Your task to perform on an android device: move an email to a new category in the gmail app Image 0: 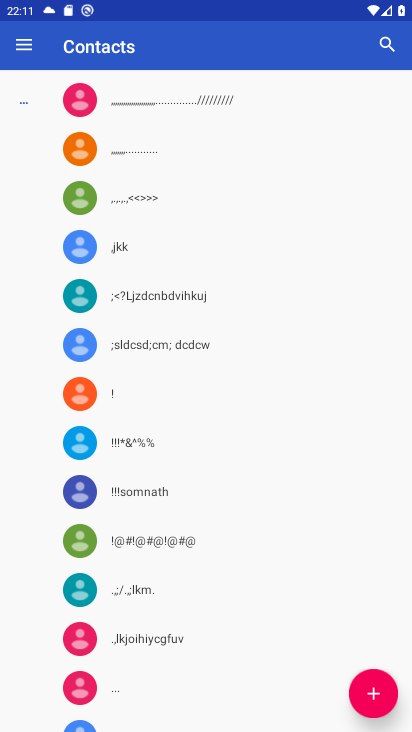
Step 0: press home button
Your task to perform on an android device: move an email to a new category in the gmail app Image 1: 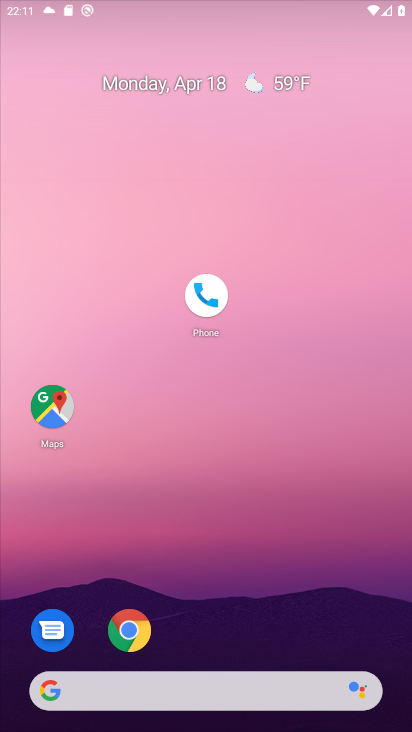
Step 1: drag from (202, 632) to (276, 83)
Your task to perform on an android device: move an email to a new category in the gmail app Image 2: 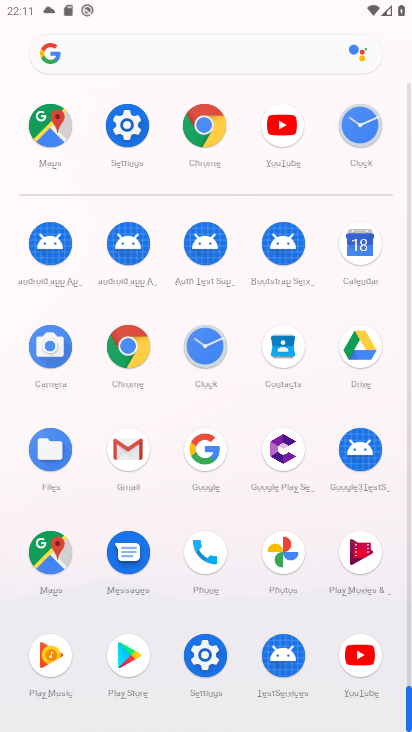
Step 2: click (128, 464)
Your task to perform on an android device: move an email to a new category in the gmail app Image 3: 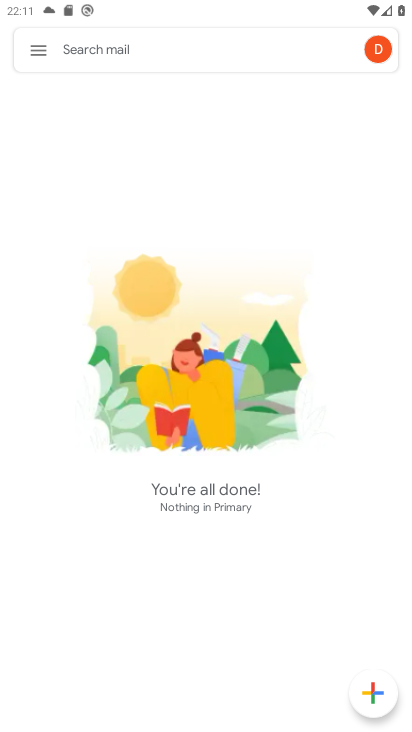
Step 3: click (33, 57)
Your task to perform on an android device: move an email to a new category in the gmail app Image 4: 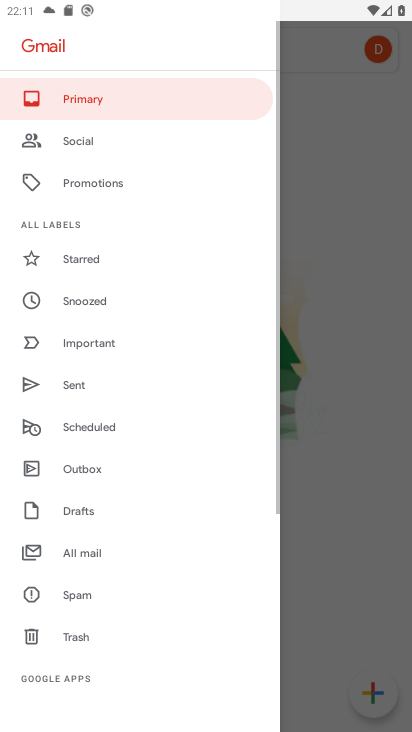
Step 4: click (85, 552)
Your task to perform on an android device: move an email to a new category in the gmail app Image 5: 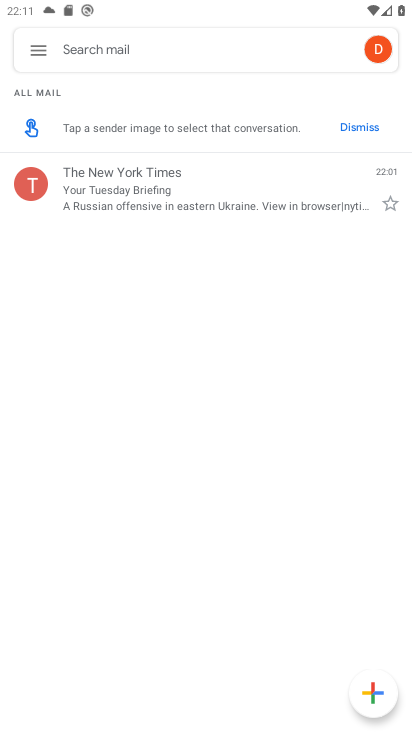
Step 5: click (286, 190)
Your task to perform on an android device: move an email to a new category in the gmail app Image 6: 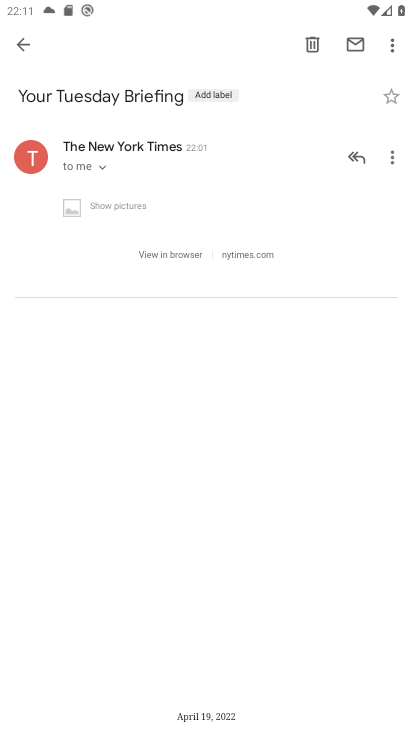
Step 6: click (390, 153)
Your task to perform on an android device: move an email to a new category in the gmail app Image 7: 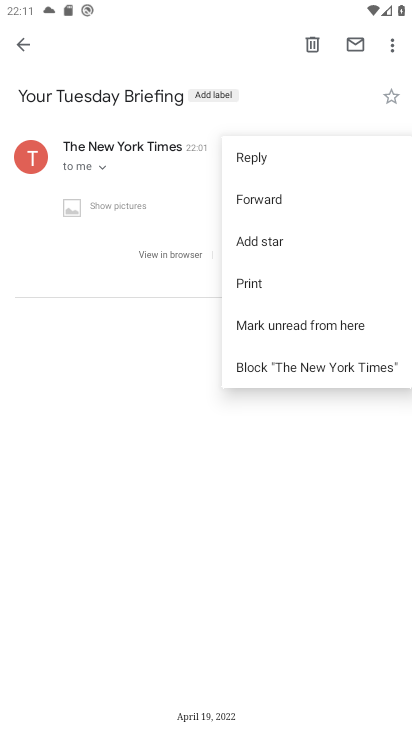
Step 7: click (149, 396)
Your task to perform on an android device: move an email to a new category in the gmail app Image 8: 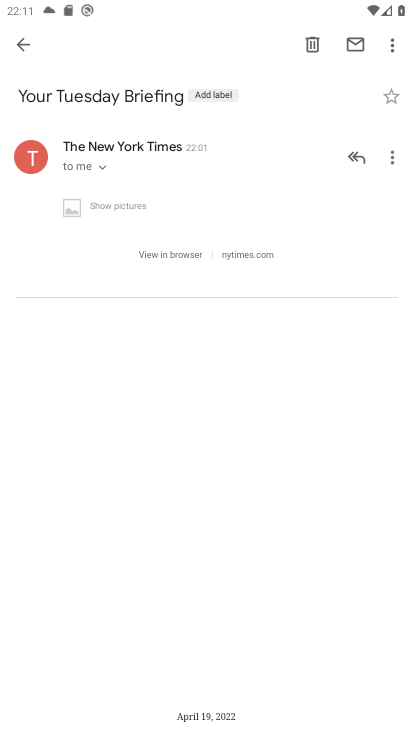
Step 8: click (393, 157)
Your task to perform on an android device: move an email to a new category in the gmail app Image 9: 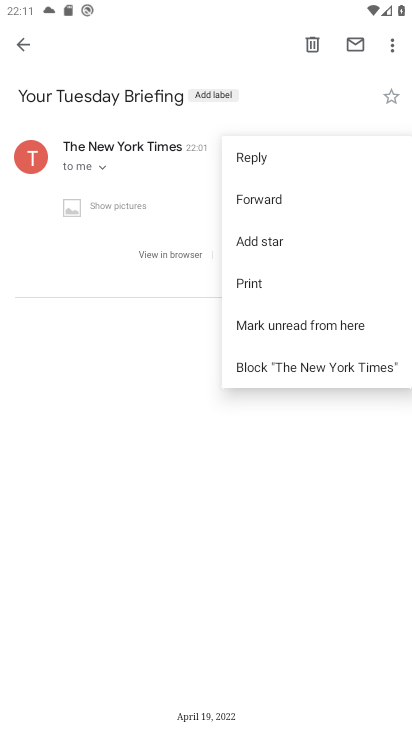
Step 9: click (242, 417)
Your task to perform on an android device: move an email to a new category in the gmail app Image 10: 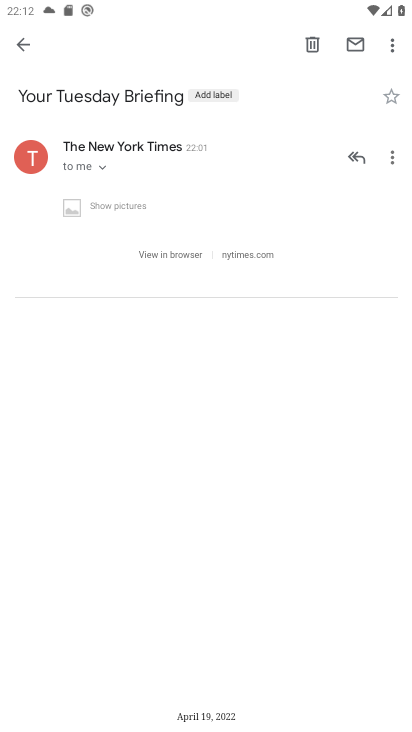
Step 10: click (142, 389)
Your task to perform on an android device: move an email to a new category in the gmail app Image 11: 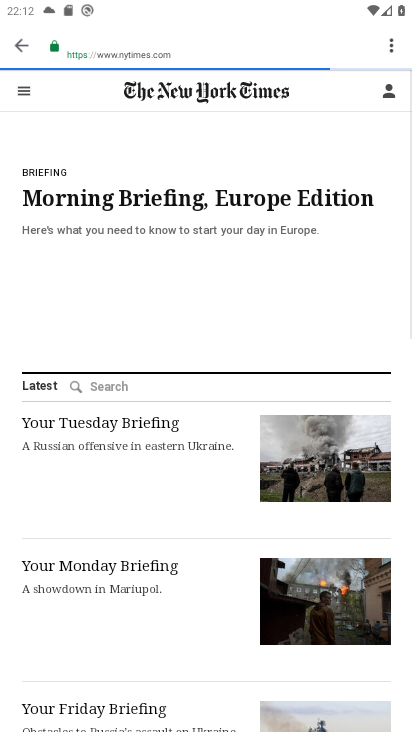
Step 11: click (20, 47)
Your task to perform on an android device: move an email to a new category in the gmail app Image 12: 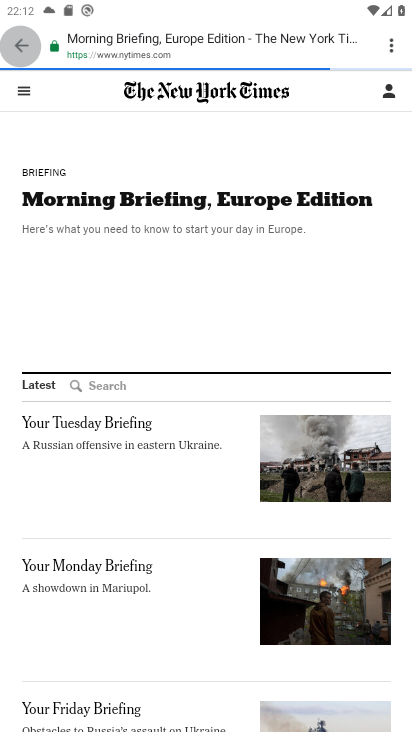
Step 12: click (18, 48)
Your task to perform on an android device: move an email to a new category in the gmail app Image 13: 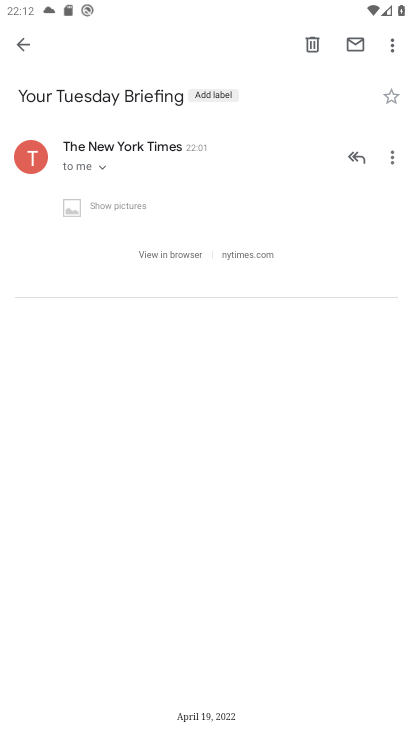
Step 13: click (18, 40)
Your task to perform on an android device: move an email to a new category in the gmail app Image 14: 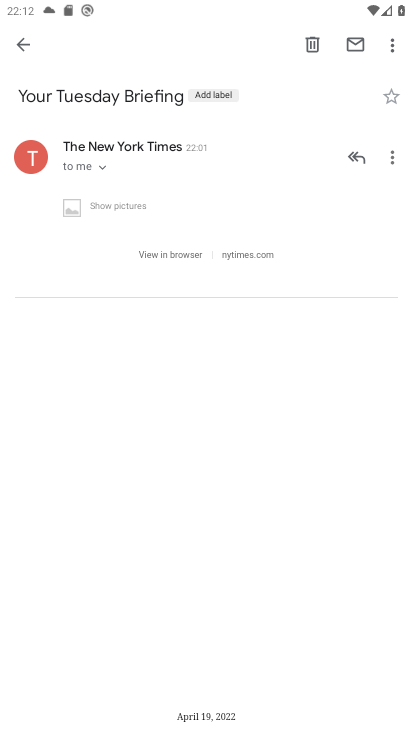
Step 14: click (23, 44)
Your task to perform on an android device: move an email to a new category in the gmail app Image 15: 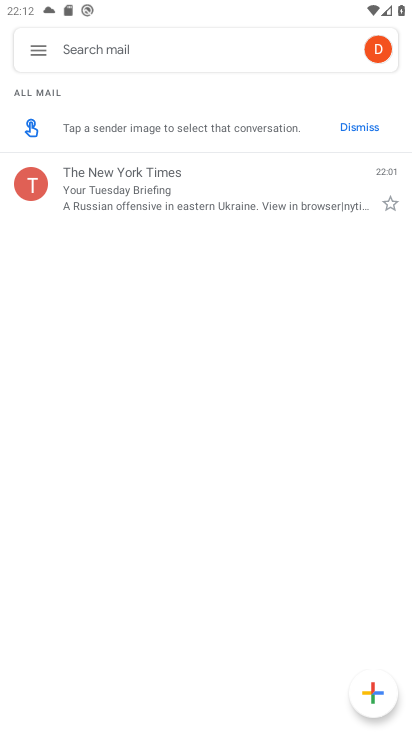
Step 15: click (288, 191)
Your task to perform on an android device: move an email to a new category in the gmail app Image 16: 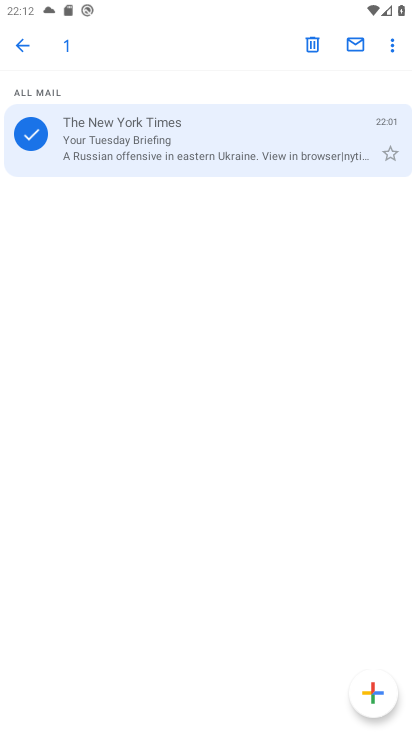
Step 16: click (397, 41)
Your task to perform on an android device: move an email to a new category in the gmail app Image 17: 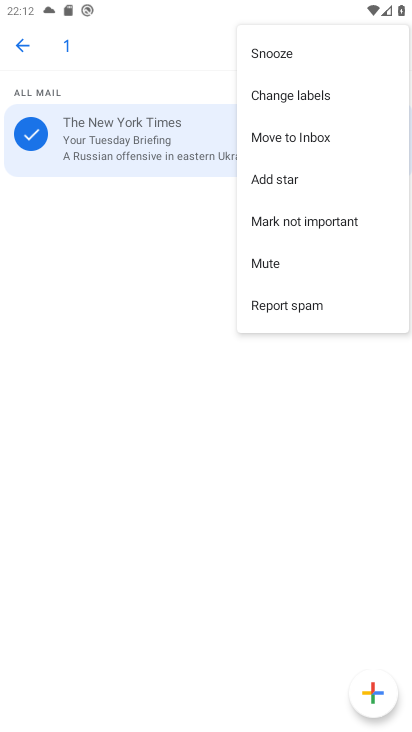
Step 17: click (325, 136)
Your task to perform on an android device: move an email to a new category in the gmail app Image 18: 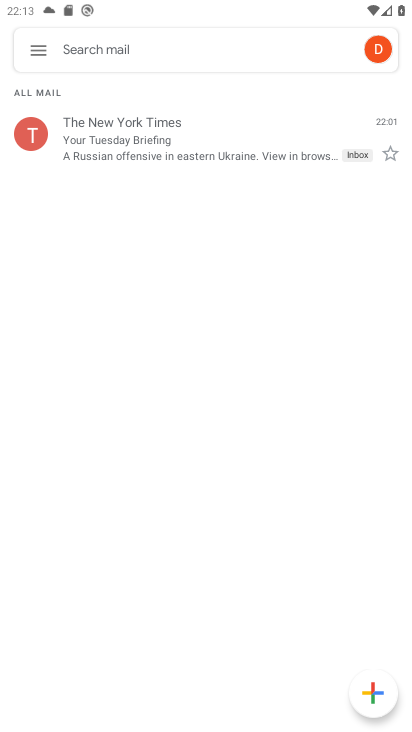
Step 18: task complete